Your task to perform on an android device: change timer sound Image 0: 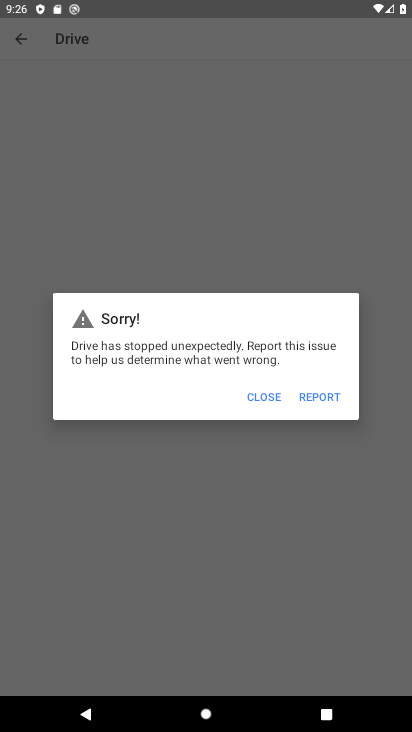
Step 0: press home button
Your task to perform on an android device: change timer sound Image 1: 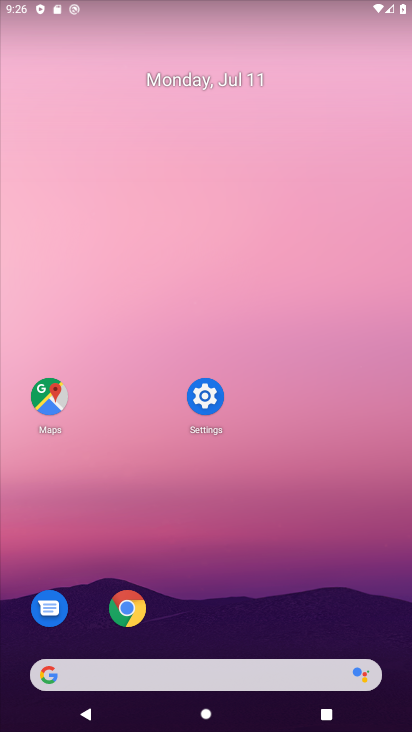
Step 1: drag from (398, 669) to (340, 151)
Your task to perform on an android device: change timer sound Image 2: 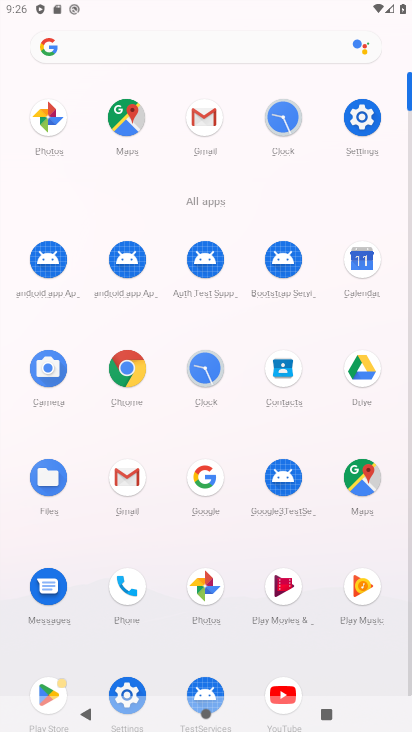
Step 2: drag from (208, 370) to (177, 510)
Your task to perform on an android device: change timer sound Image 3: 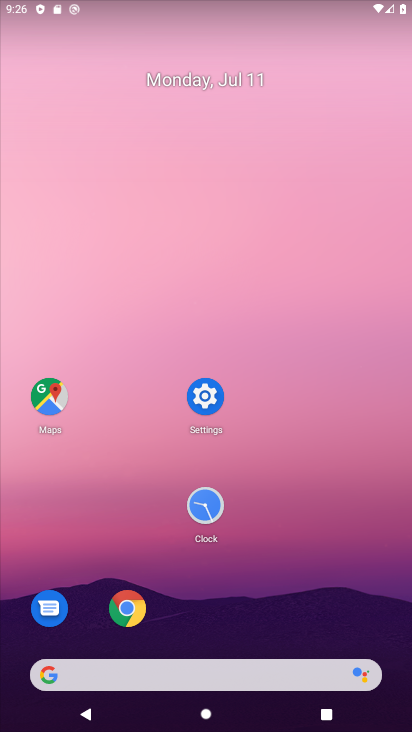
Step 3: click (211, 510)
Your task to perform on an android device: change timer sound Image 4: 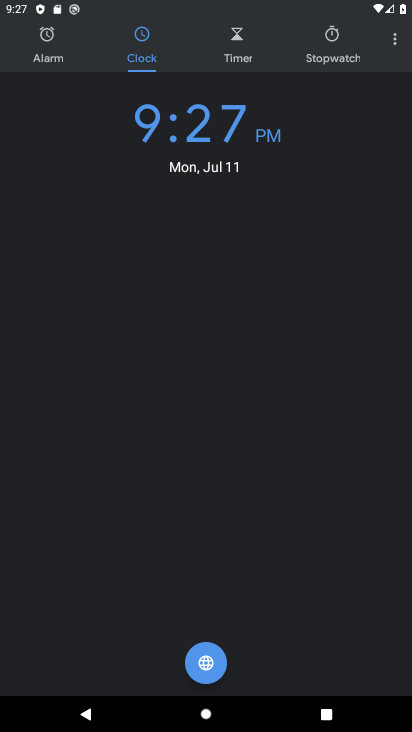
Step 4: click (397, 32)
Your task to perform on an android device: change timer sound Image 5: 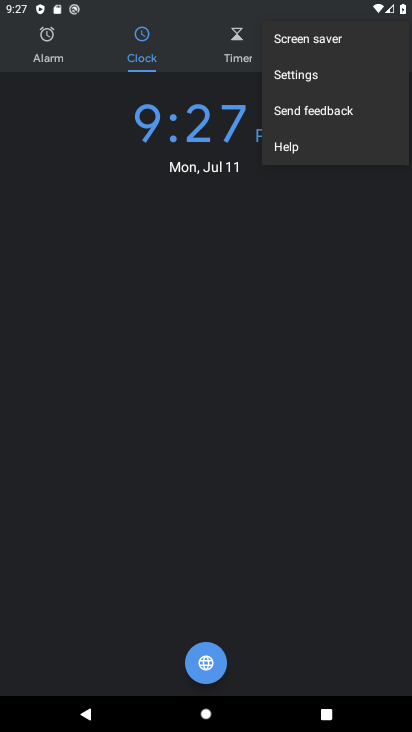
Step 5: click (319, 78)
Your task to perform on an android device: change timer sound Image 6: 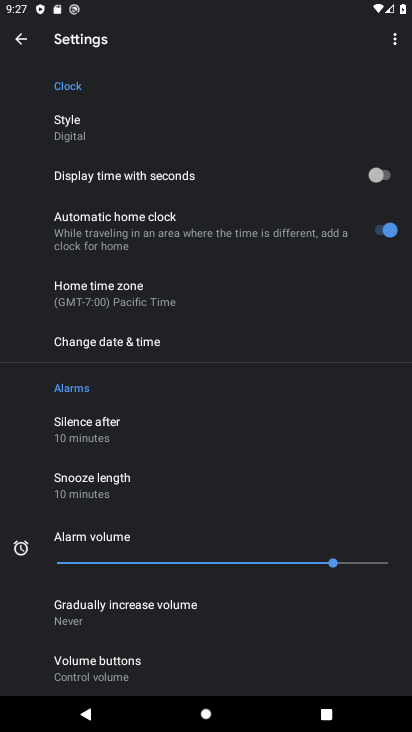
Step 6: drag from (181, 606) to (215, 260)
Your task to perform on an android device: change timer sound Image 7: 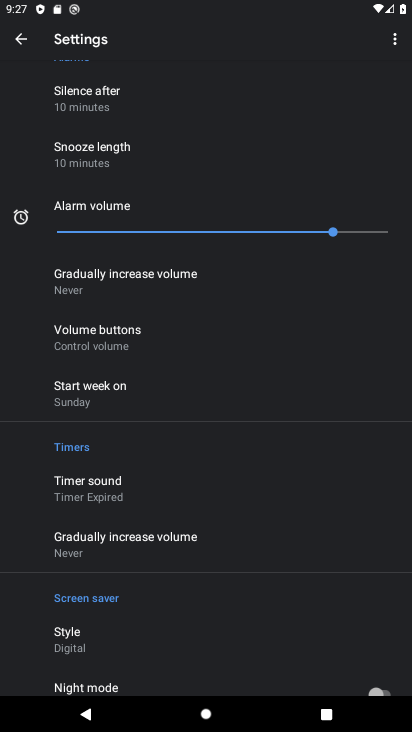
Step 7: click (93, 490)
Your task to perform on an android device: change timer sound Image 8: 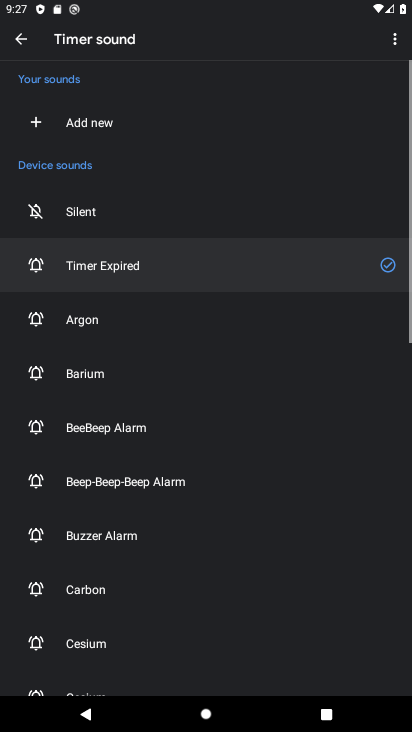
Step 8: click (74, 373)
Your task to perform on an android device: change timer sound Image 9: 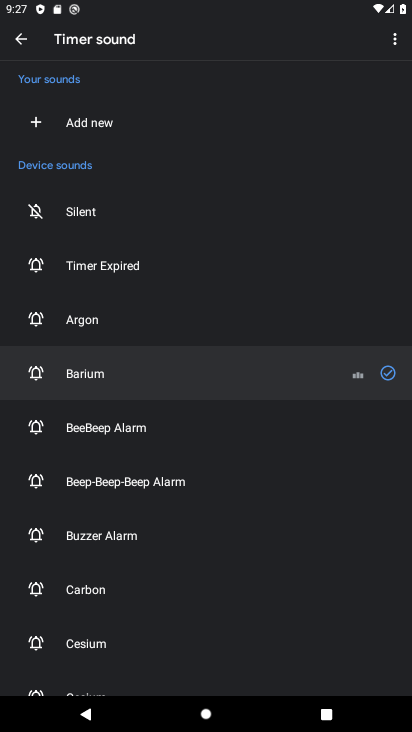
Step 9: task complete